Your task to perform on an android device: Go to network settings Image 0: 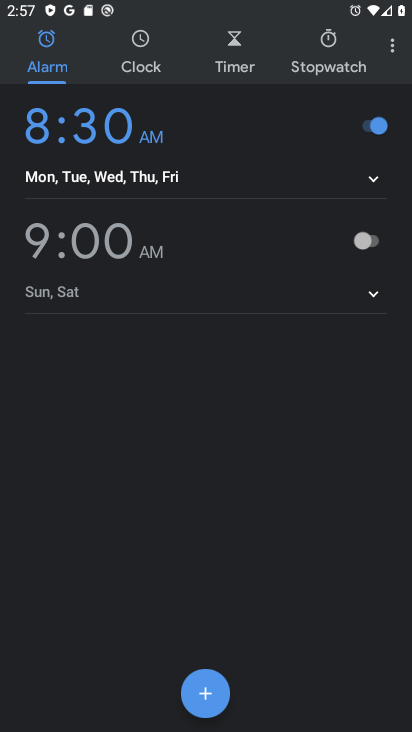
Step 0: press home button
Your task to perform on an android device: Go to network settings Image 1: 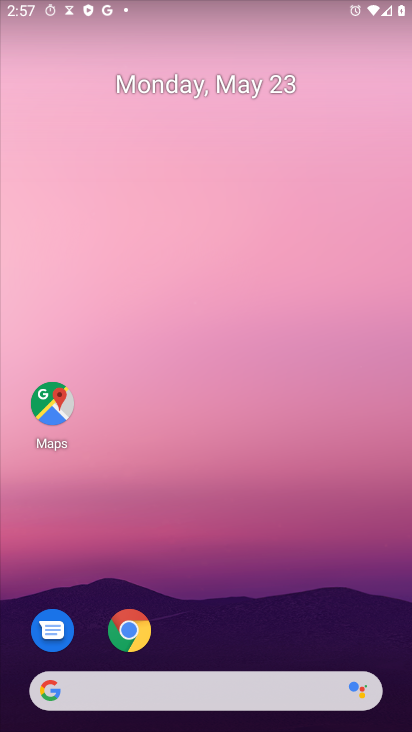
Step 1: drag from (264, 519) to (277, 55)
Your task to perform on an android device: Go to network settings Image 2: 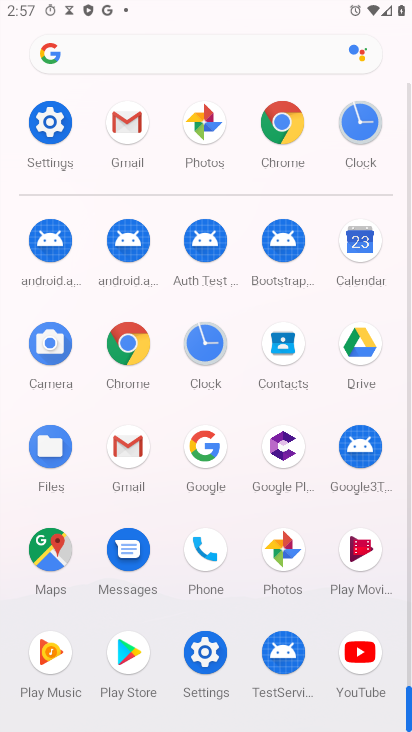
Step 2: click (43, 110)
Your task to perform on an android device: Go to network settings Image 3: 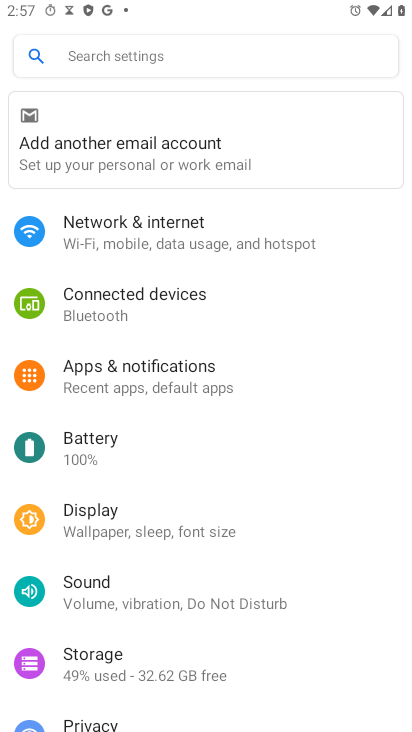
Step 3: drag from (142, 218) to (229, 547)
Your task to perform on an android device: Go to network settings Image 4: 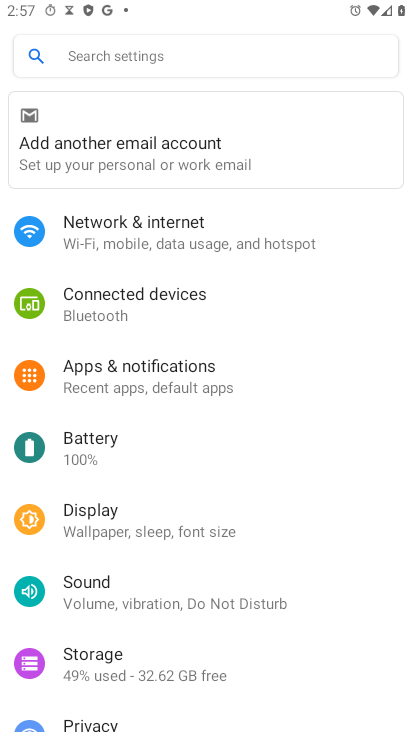
Step 4: click (136, 236)
Your task to perform on an android device: Go to network settings Image 5: 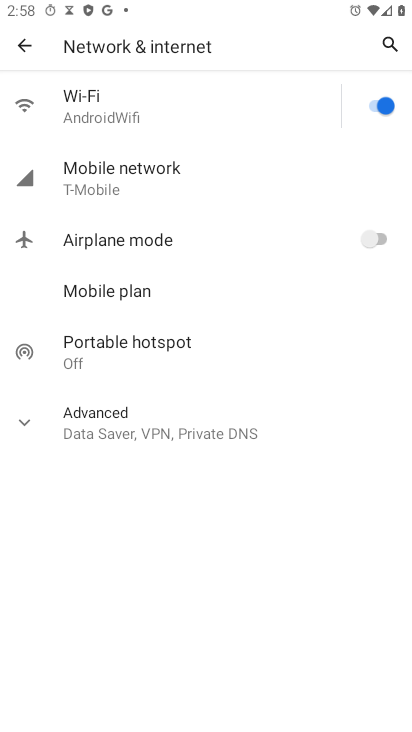
Step 5: task complete